Your task to perform on an android device: Open location settings Image 0: 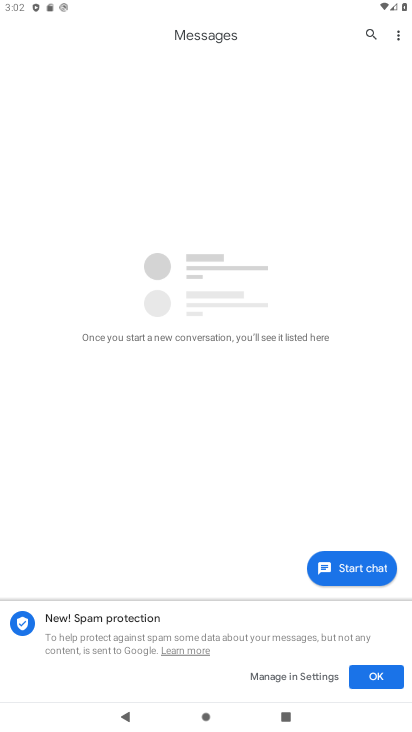
Step 0: press home button
Your task to perform on an android device: Open location settings Image 1: 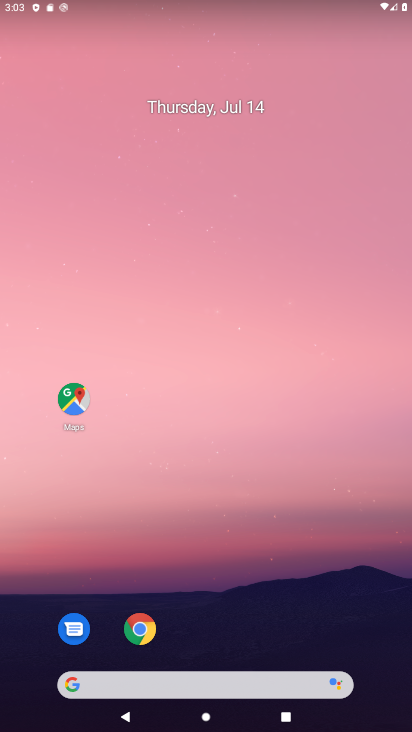
Step 1: press home button
Your task to perform on an android device: Open location settings Image 2: 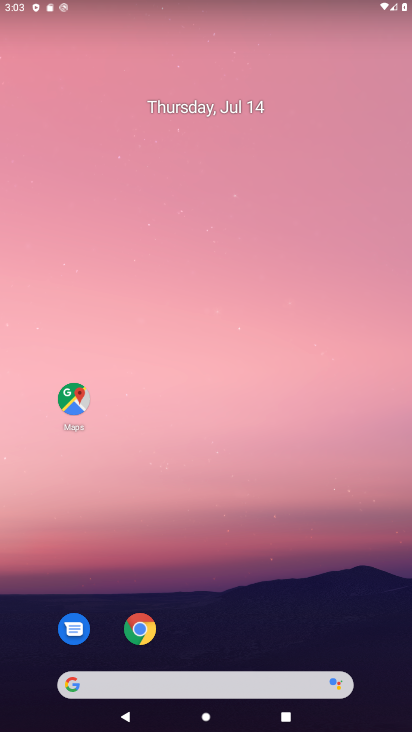
Step 2: drag from (328, 600) to (307, 74)
Your task to perform on an android device: Open location settings Image 3: 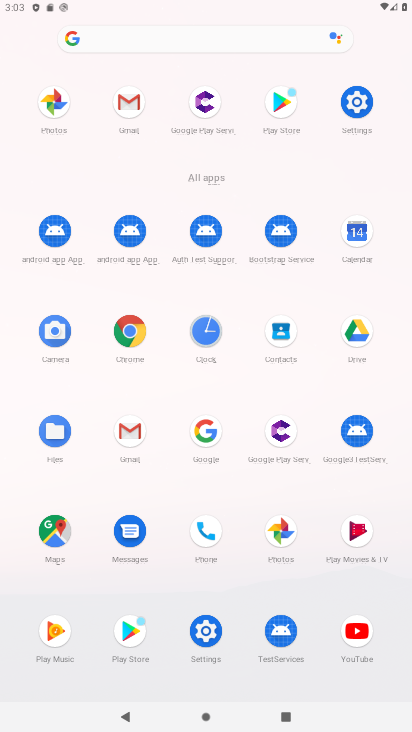
Step 3: click (359, 102)
Your task to perform on an android device: Open location settings Image 4: 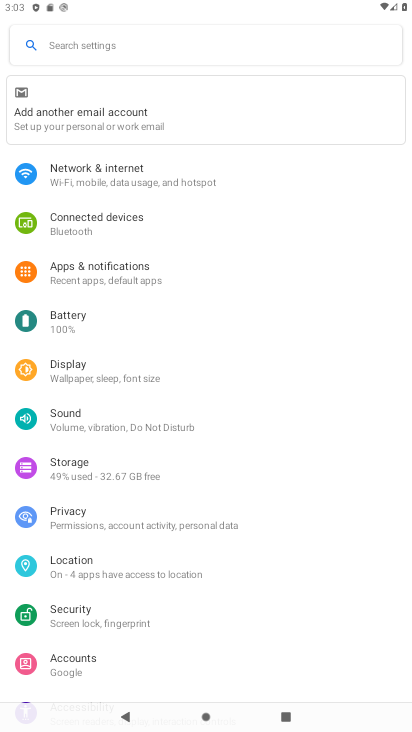
Step 4: click (68, 562)
Your task to perform on an android device: Open location settings Image 5: 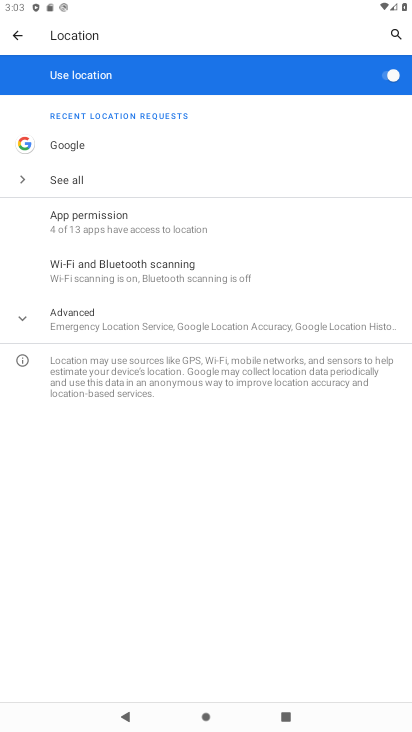
Step 5: task complete